Your task to perform on an android device: turn off location Image 0: 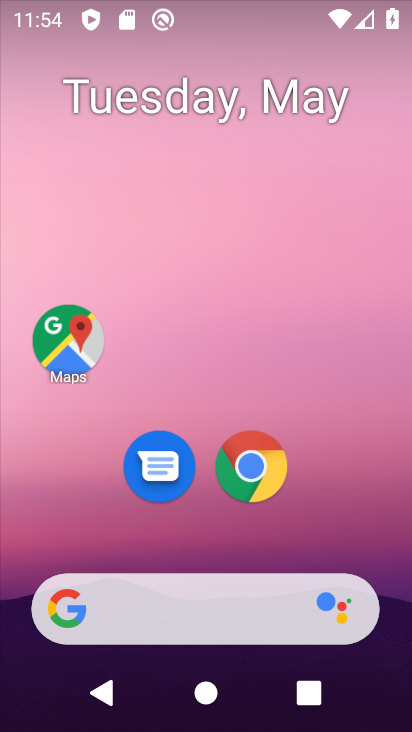
Step 0: drag from (230, 476) to (229, 114)
Your task to perform on an android device: turn off location Image 1: 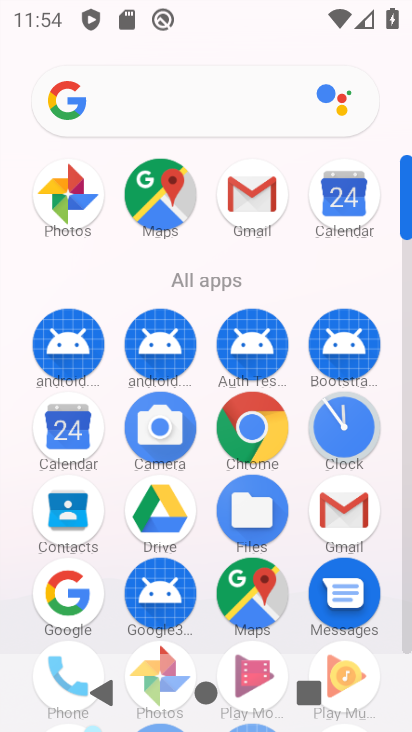
Step 1: drag from (106, 540) to (144, 25)
Your task to perform on an android device: turn off location Image 2: 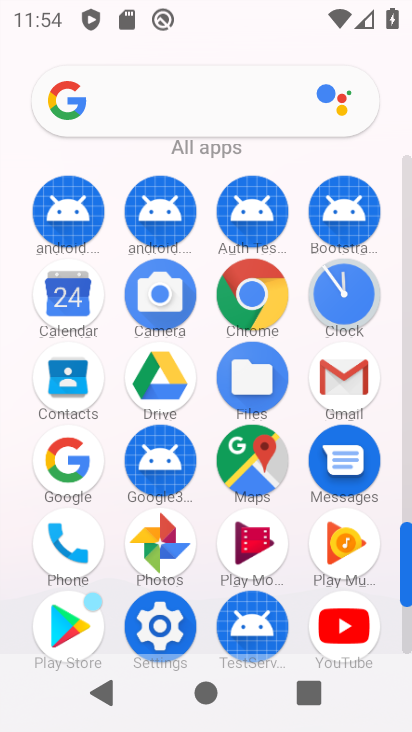
Step 2: click (155, 655)
Your task to perform on an android device: turn off location Image 3: 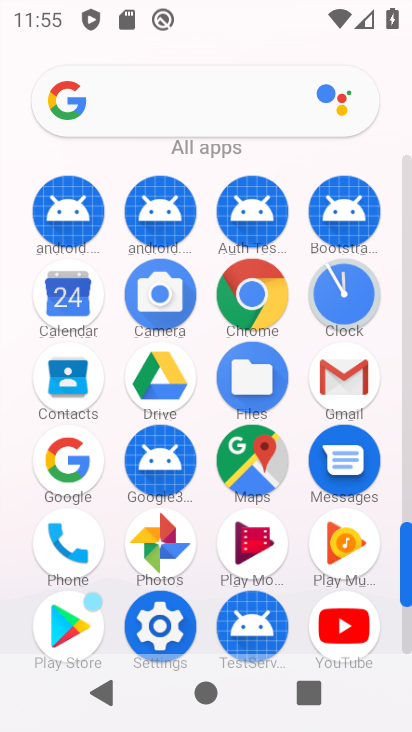
Step 3: click (157, 643)
Your task to perform on an android device: turn off location Image 4: 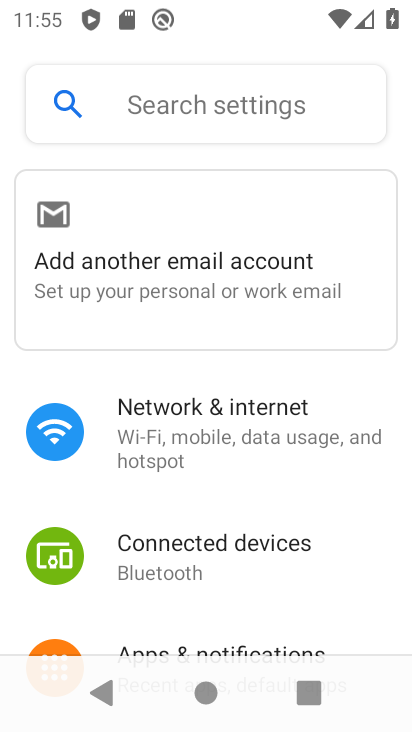
Step 4: drag from (157, 643) to (9, 128)
Your task to perform on an android device: turn off location Image 5: 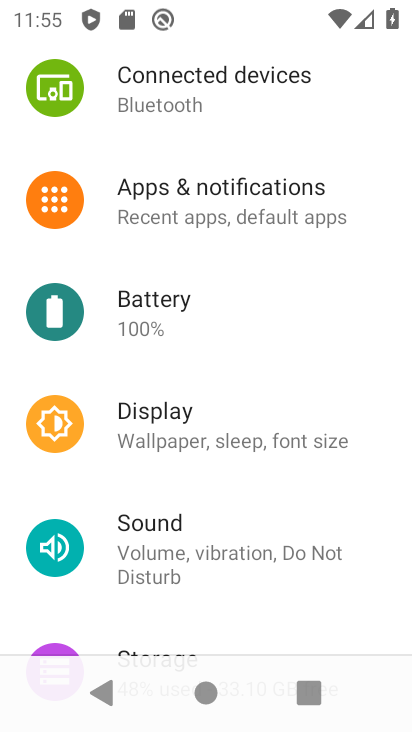
Step 5: drag from (132, 456) to (98, 147)
Your task to perform on an android device: turn off location Image 6: 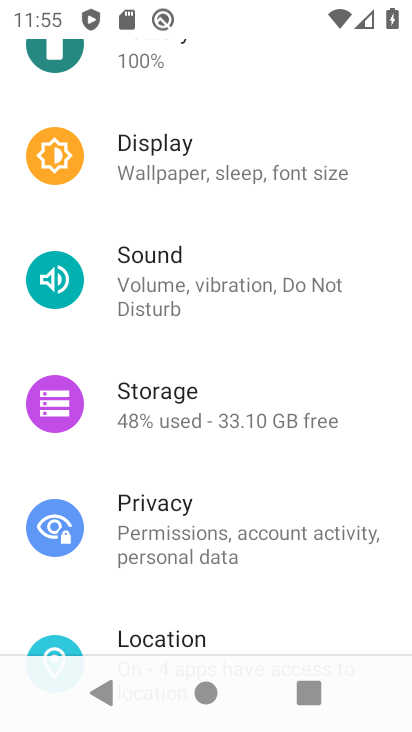
Step 6: click (179, 625)
Your task to perform on an android device: turn off location Image 7: 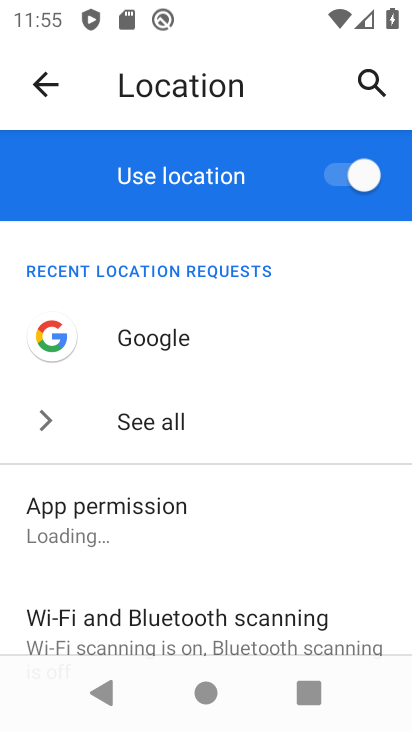
Step 7: click (333, 178)
Your task to perform on an android device: turn off location Image 8: 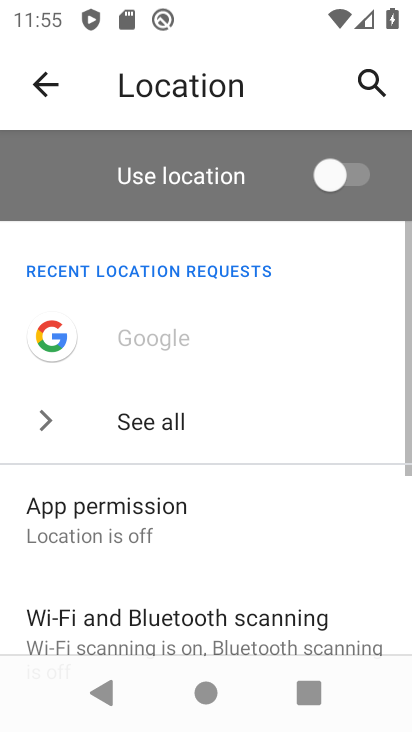
Step 8: task complete